Your task to perform on an android device: Add "bose soundsport free" to the cart on walmart.com Image 0: 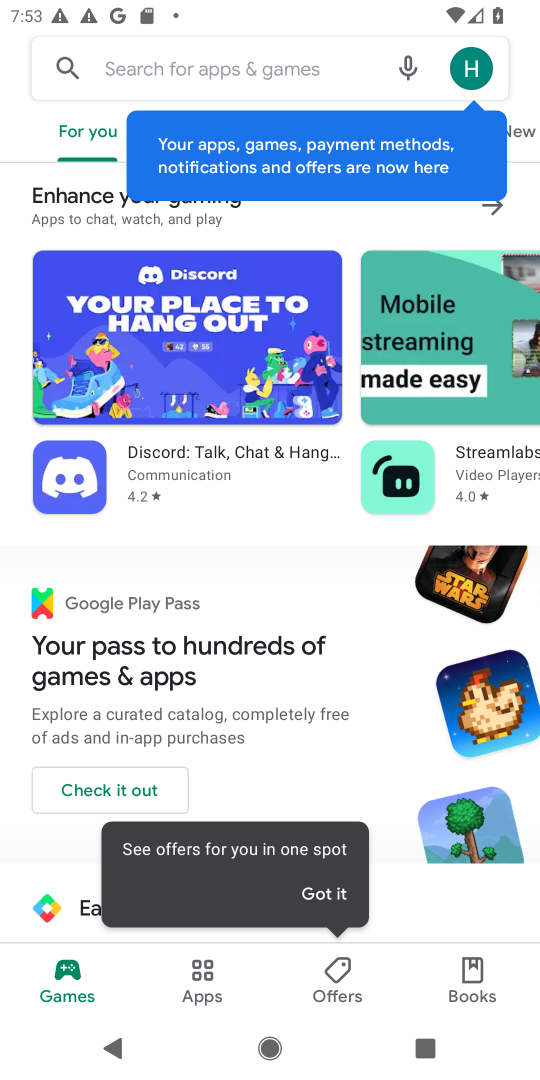
Step 0: press home button
Your task to perform on an android device: Add "bose soundsport free" to the cart on walmart.com Image 1: 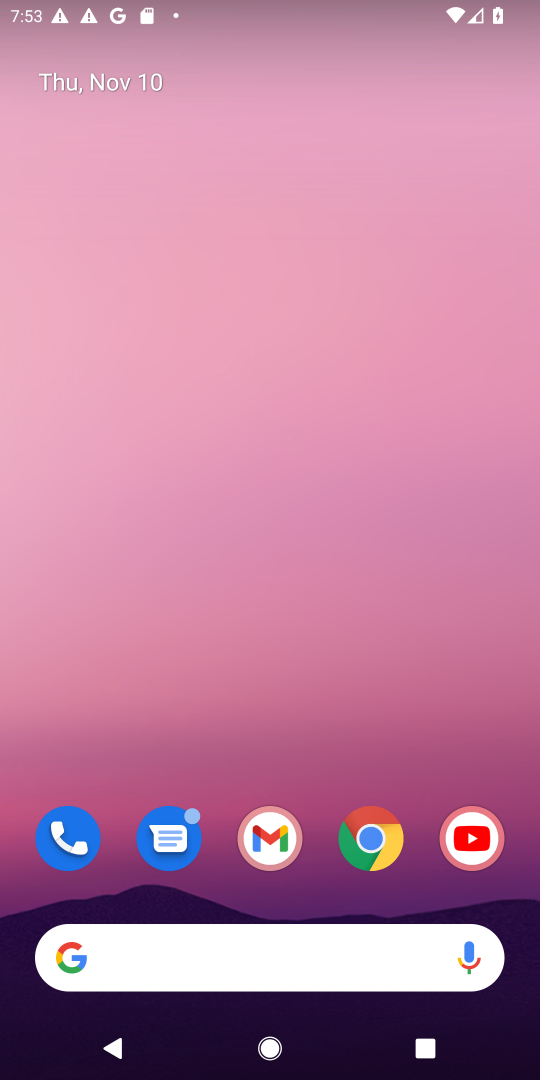
Step 1: drag from (324, 896) to (261, 1)
Your task to perform on an android device: Add "bose soundsport free" to the cart on walmart.com Image 2: 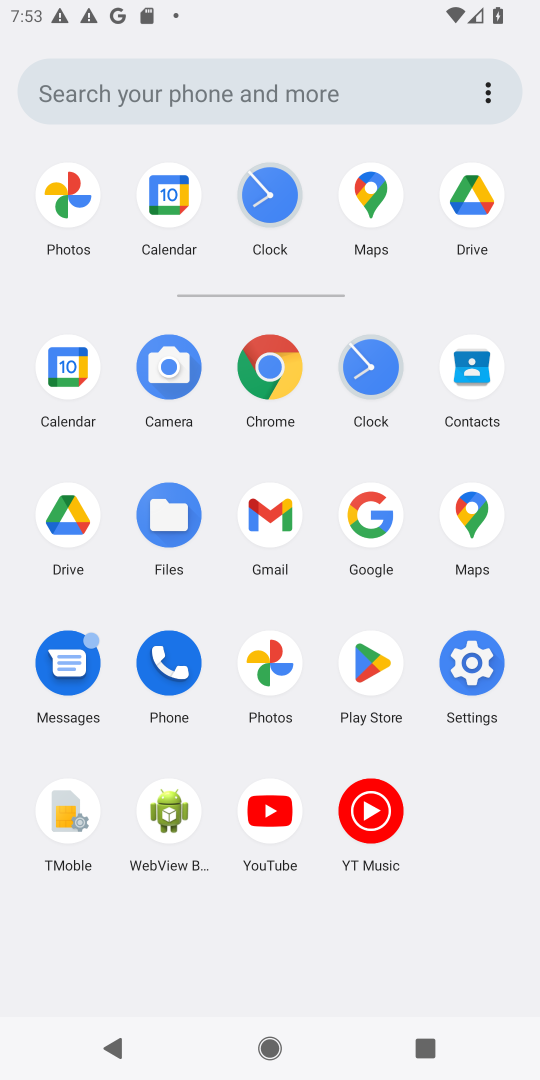
Step 2: click (269, 370)
Your task to perform on an android device: Add "bose soundsport free" to the cart on walmart.com Image 3: 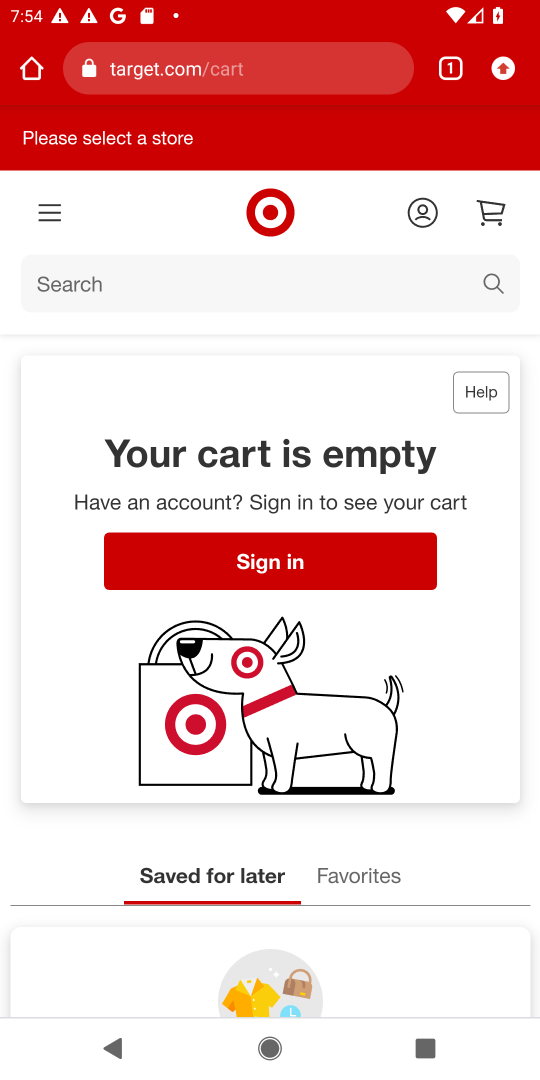
Step 3: click (293, 67)
Your task to perform on an android device: Add "bose soundsport free" to the cart on walmart.com Image 4: 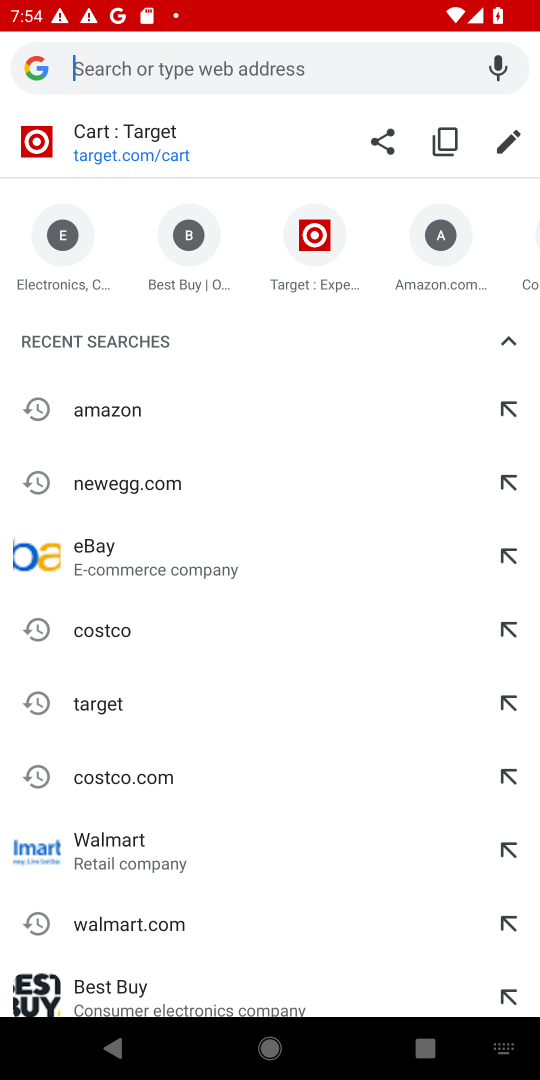
Step 4: type "walmart.com"
Your task to perform on an android device: Add "bose soundsport free" to the cart on walmart.com Image 5: 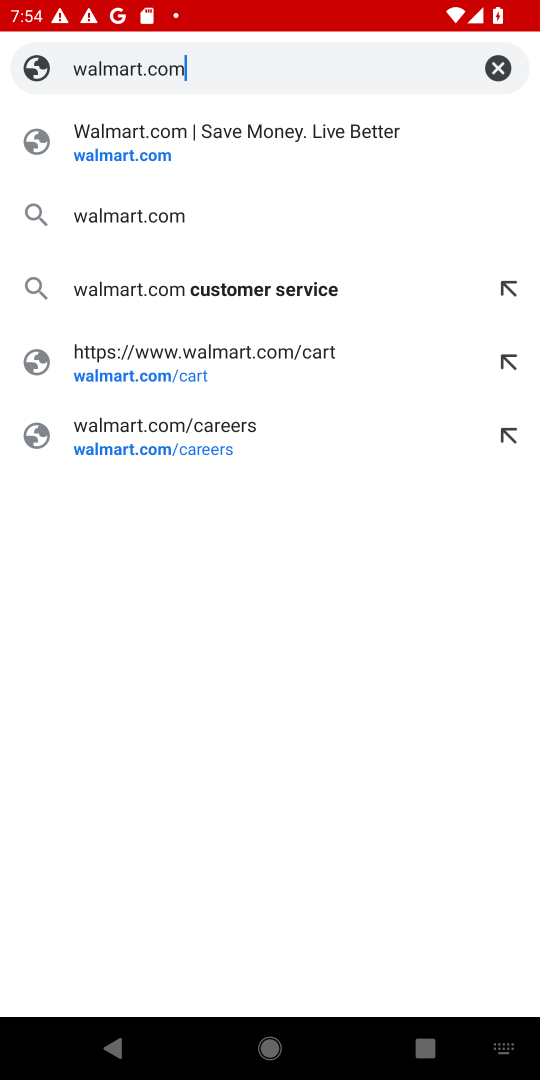
Step 5: press enter
Your task to perform on an android device: Add "bose soundsport free" to the cart on walmart.com Image 6: 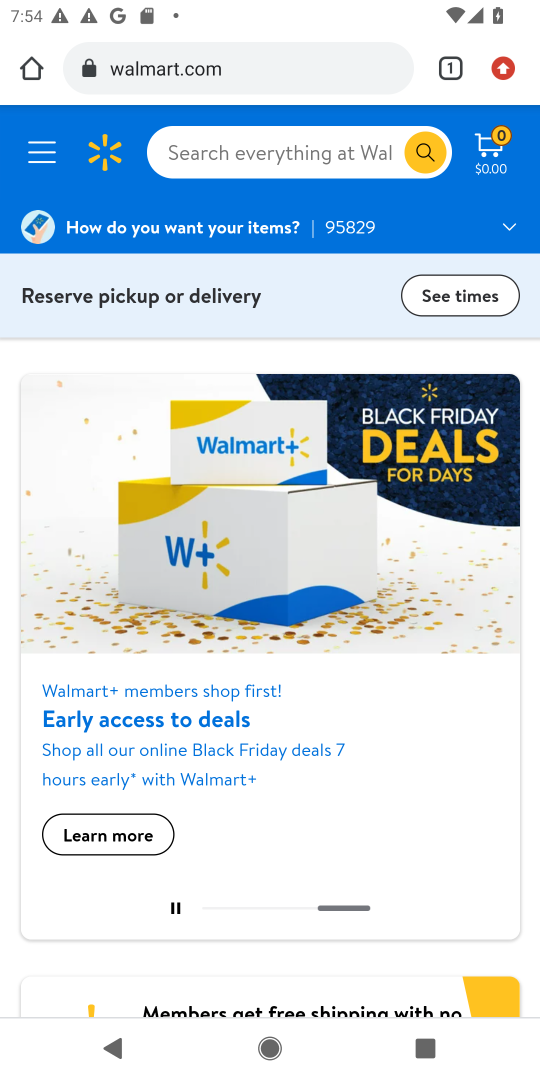
Step 6: click (345, 155)
Your task to perform on an android device: Add "bose soundsport free" to the cart on walmart.com Image 7: 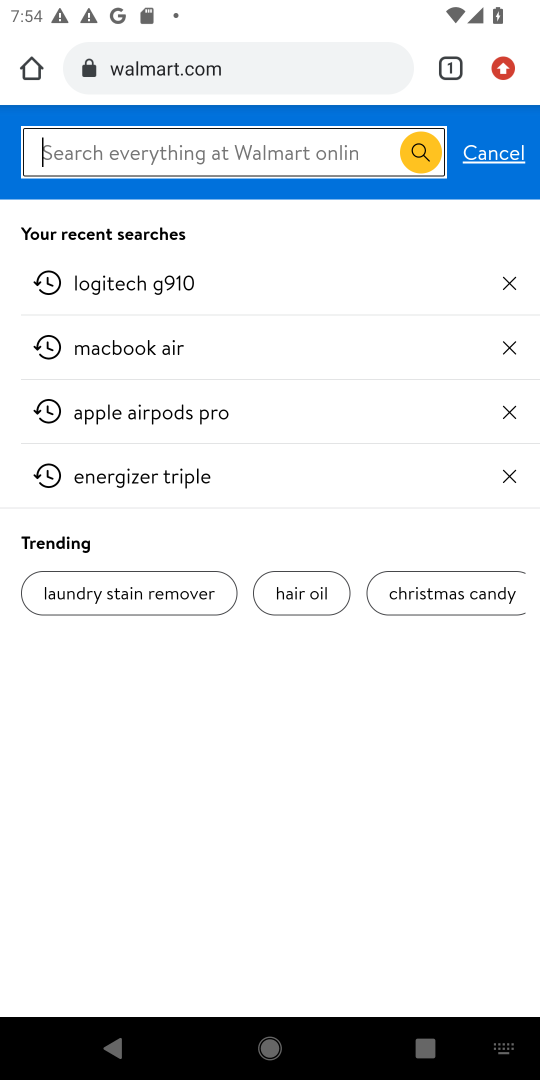
Step 7: type "bose soundsport free"
Your task to perform on an android device: Add "bose soundsport free" to the cart on walmart.com Image 8: 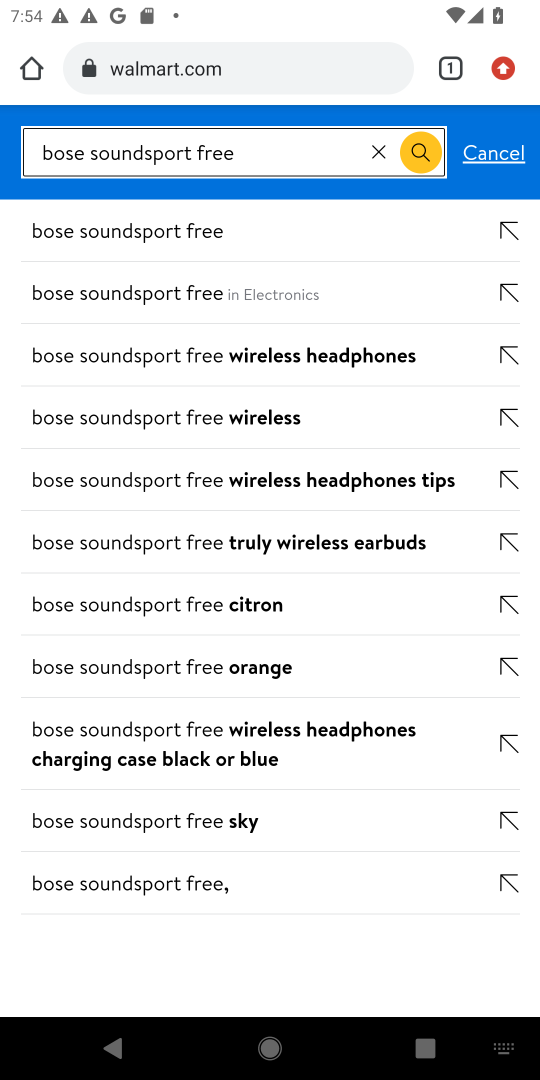
Step 8: press enter
Your task to perform on an android device: Add "bose soundsport free" to the cart on walmart.com Image 9: 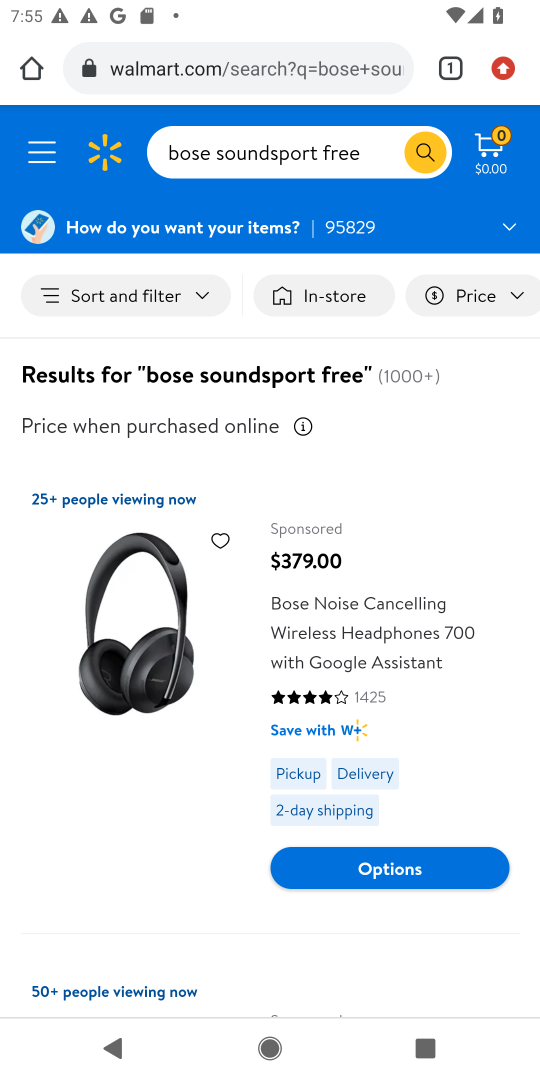
Step 9: click (440, 880)
Your task to perform on an android device: Add "bose soundsport free" to the cart on walmart.com Image 10: 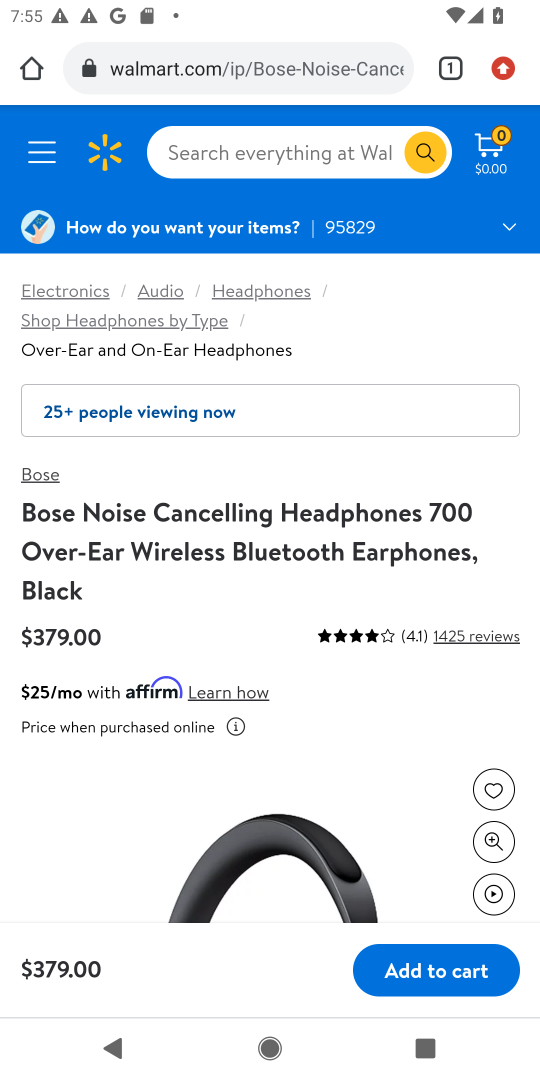
Step 10: drag from (171, 711) to (240, 197)
Your task to perform on an android device: Add "bose soundsport free" to the cart on walmart.com Image 11: 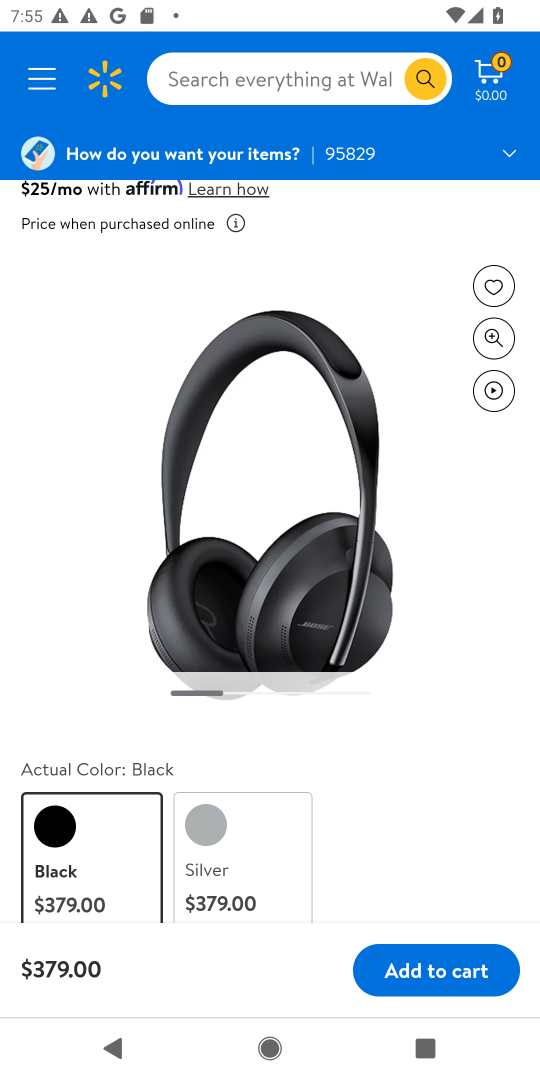
Step 11: drag from (250, 515) to (267, 328)
Your task to perform on an android device: Add "bose soundsport free" to the cart on walmart.com Image 12: 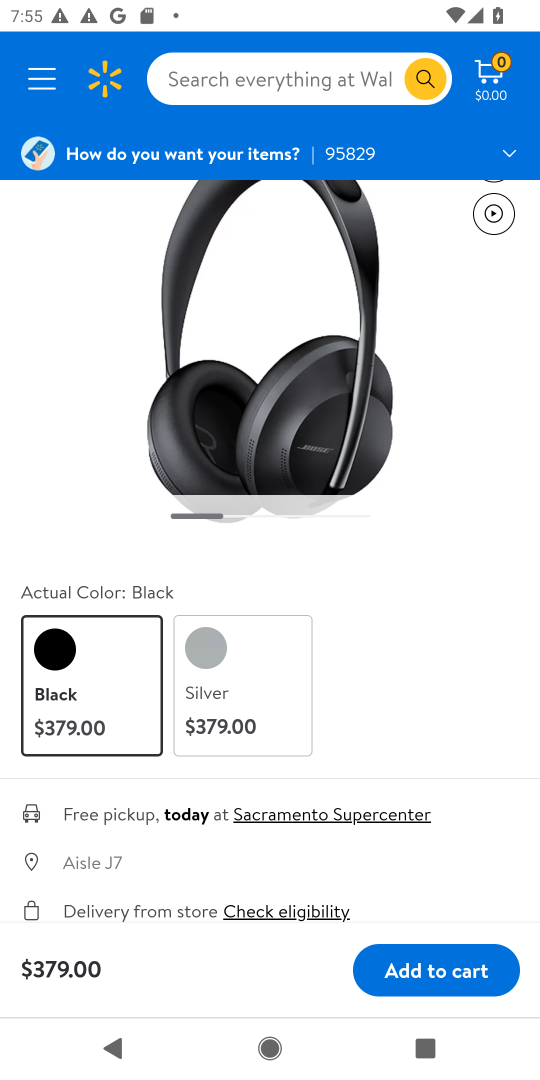
Step 12: click (486, 957)
Your task to perform on an android device: Add "bose soundsport free" to the cart on walmart.com Image 13: 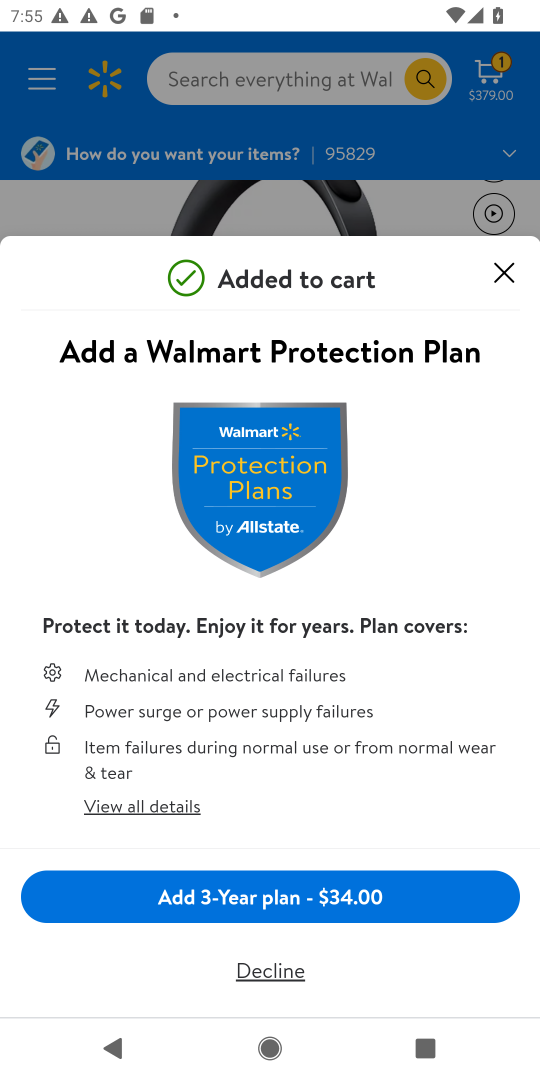
Step 13: task complete